Your task to perform on an android device: clear all cookies in the chrome app Image 0: 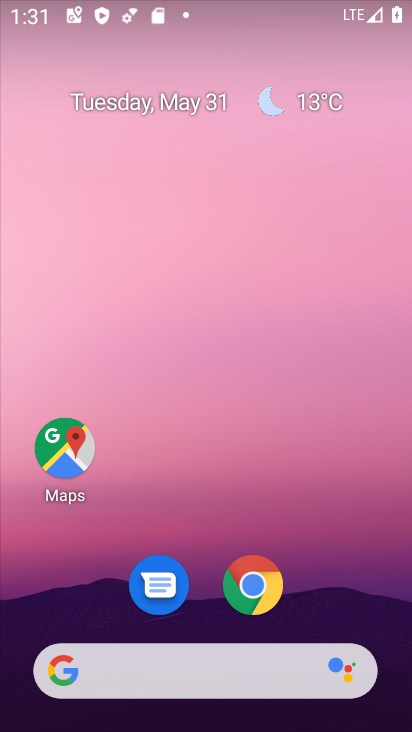
Step 0: click (268, 586)
Your task to perform on an android device: clear all cookies in the chrome app Image 1: 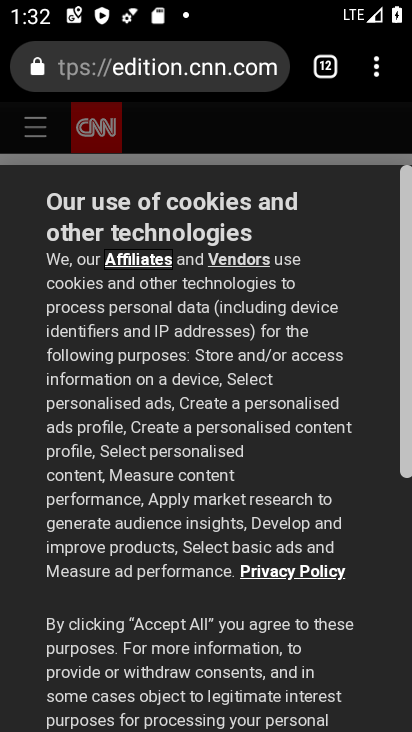
Step 1: click (374, 77)
Your task to perform on an android device: clear all cookies in the chrome app Image 2: 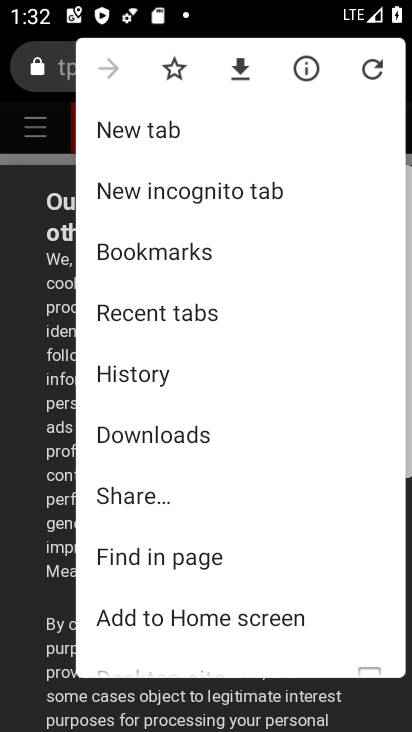
Step 2: drag from (244, 511) to (273, 113)
Your task to perform on an android device: clear all cookies in the chrome app Image 3: 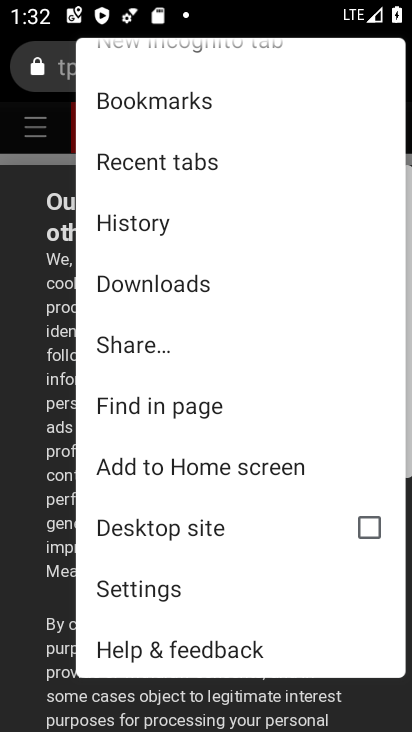
Step 3: click (161, 568)
Your task to perform on an android device: clear all cookies in the chrome app Image 4: 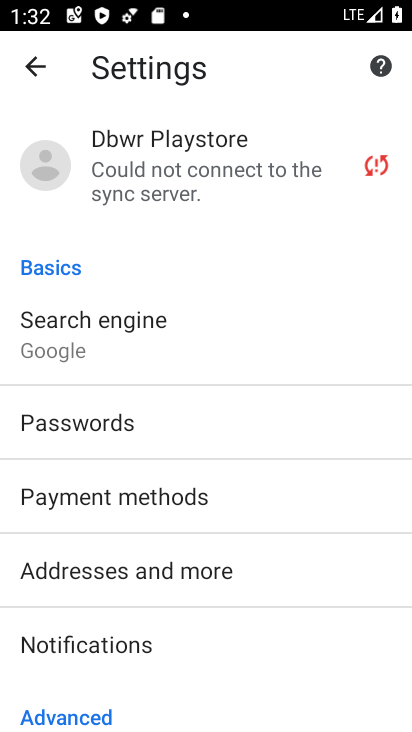
Step 4: drag from (191, 405) to (206, 129)
Your task to perform on an android device: clear all cookies in the chrome app Image 5: 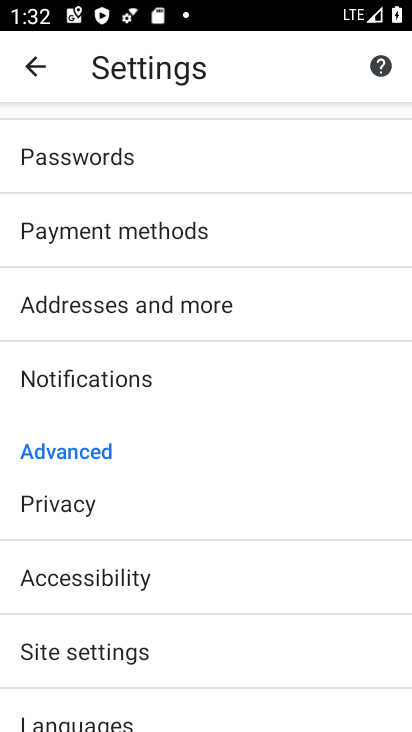
Step 5: click (94, 499)
Your task to perform on an android device: clear all cookies in the chrome app Image 6: 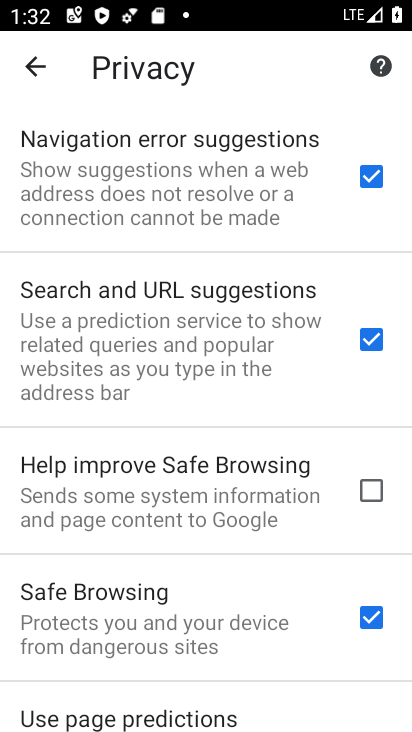
Step 6: drag from (228, 527) to (293, 88)
Your task to perform on an android device: clear all cookies in the chrome app Image 7: 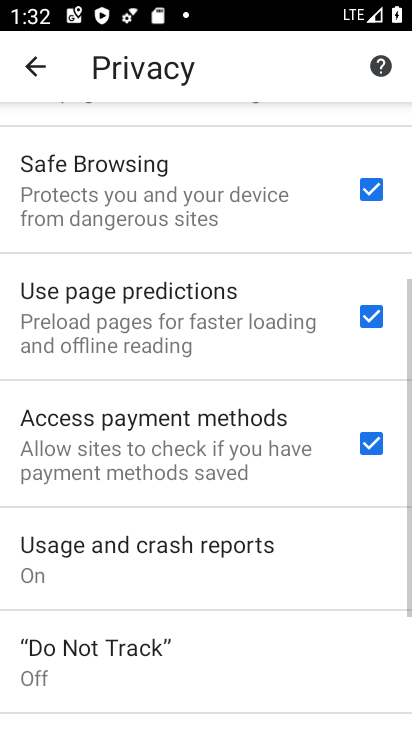
Step 7: drag from (201, 483) to (203, 238)
Your task to perform on an android device: clear all cookies in the chrome app Image 8: 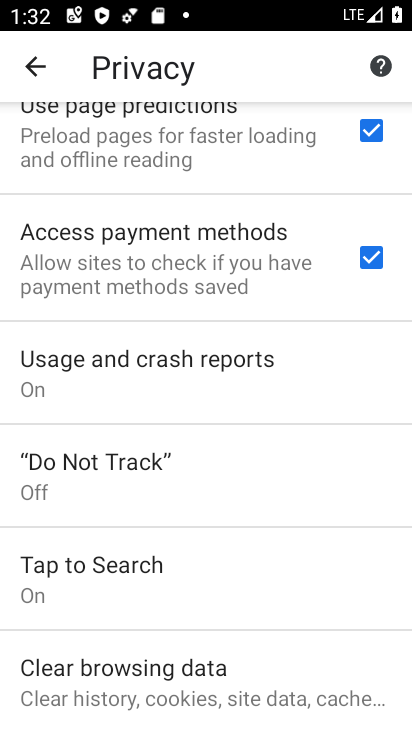
Step 8: click (148, 690)
Your task to perform on an android device: clear all cookies in the chrome app Image 9: 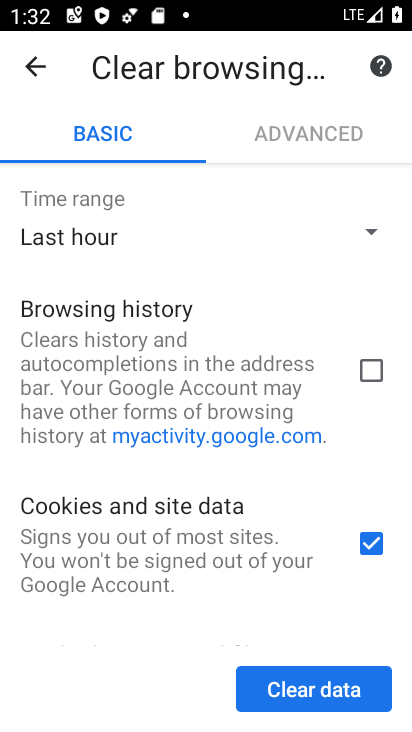
Step 9: drag from (236, 570) to (292, 237)
Your task to perform on an android device: clear all cookies in the chrome app Image 10: 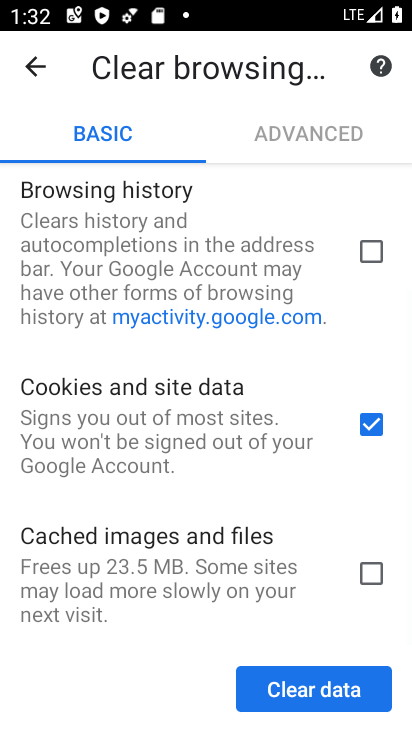
Step 10: click (289, 695)
Your task to perform on an android device: clear all cookies in the chrome app Image 11: 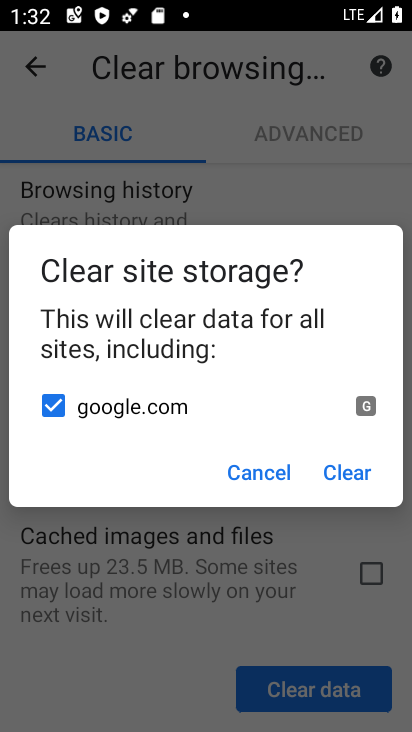
Step 11: click (349, 473)
Your task to perform on an android device: clear all cookies in the chrome app Image 12: 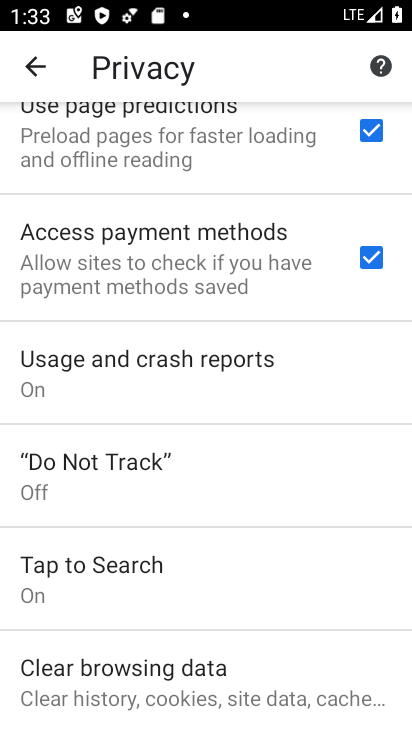
Step 12: task complete